Your task to perform on an android device: change the clock display to digital Image 0: 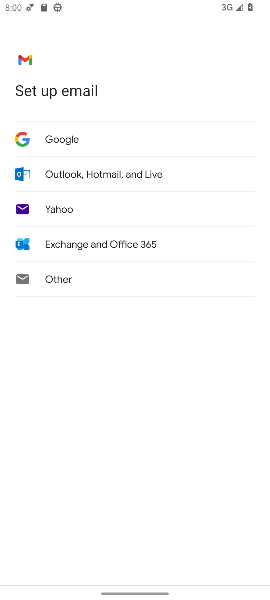
Step 0: press home button
Your task to perform on an android device: change the clock display to digital Image 1: 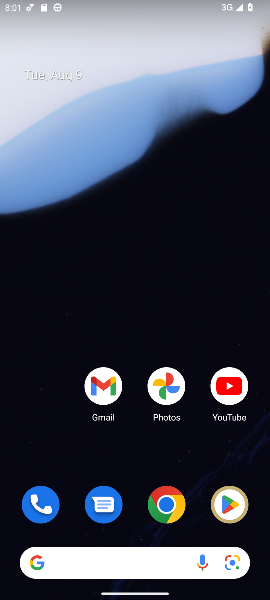
Step 1: drag from (135, 451) to (158, 150)
Your task to perform on an android device: change the clock display to digital Image 2: 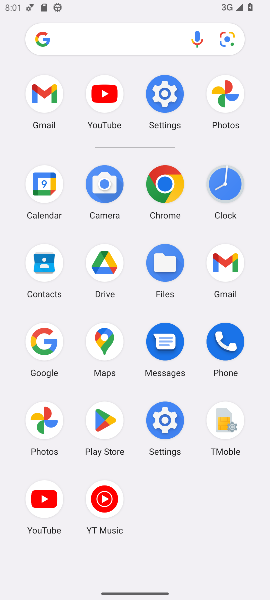
Step 2: click (222, 184)
Your task to perform on an android device: change the clock display to digital Image 3: 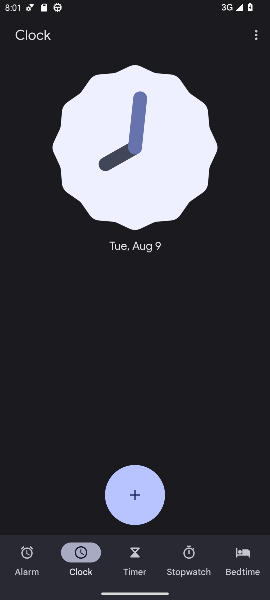
Step 3: click (257, 34)
Your task to perform on an android device: change the clock display to digital Image 4: 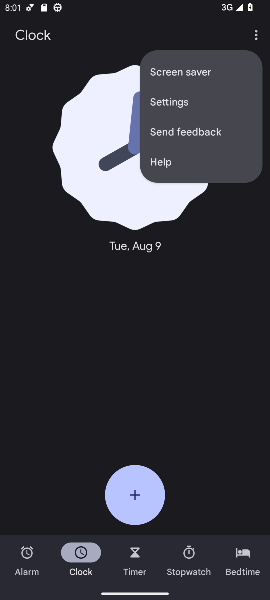
Step 4: click (177, 99)
Your task to perform on an android device: change the clock display to digital Image 5: 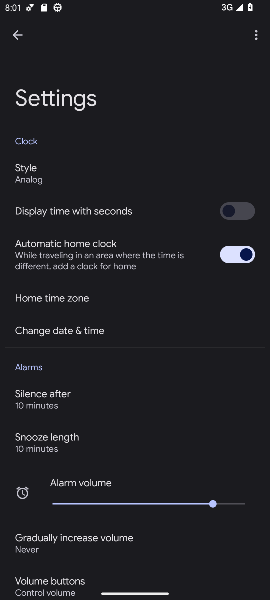
Step 5: click (33, 177)
Your task to perform on an android device: change the clock display to digital Image 6: 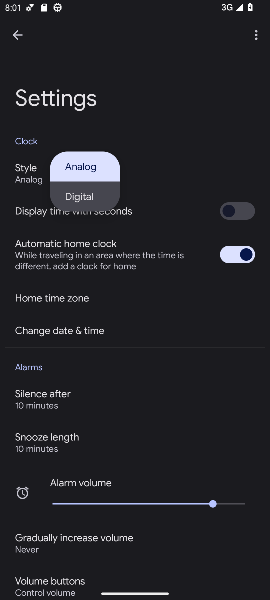
Step 6: click (76, 199)
Your task to perform on an android device: change the clock display to digital Image 7: 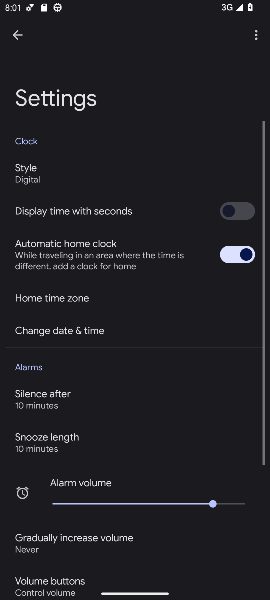
Step 7: task complete